Your task to perform on an android device: change text size in settings app Image 0: 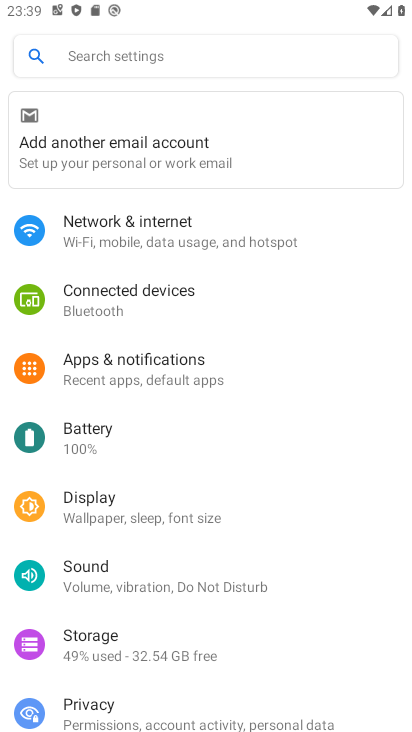
Step 0: click (256, 520)
Your task to perform on an android device: change text size in settings app Image 1: 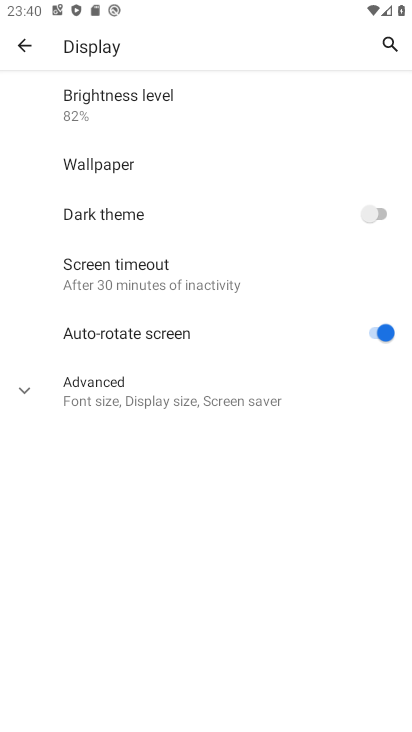
Step 1: click (148, 389)
Your task to perform on an android device: change text size in settings app Image 2: 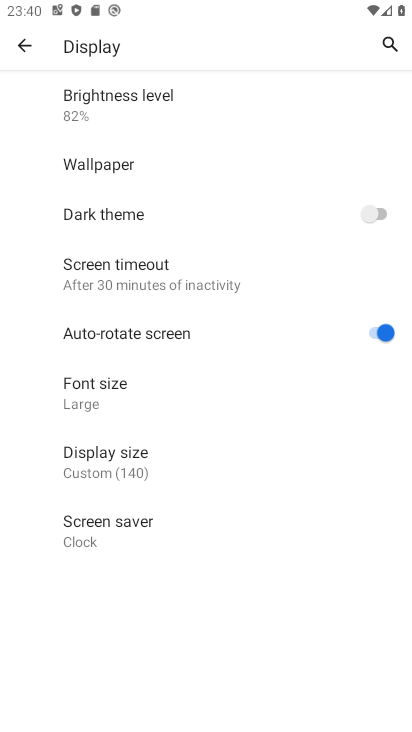
Step 2: click (148, 389)
Your task to perform on an android device: change text size in settings app Image 3: 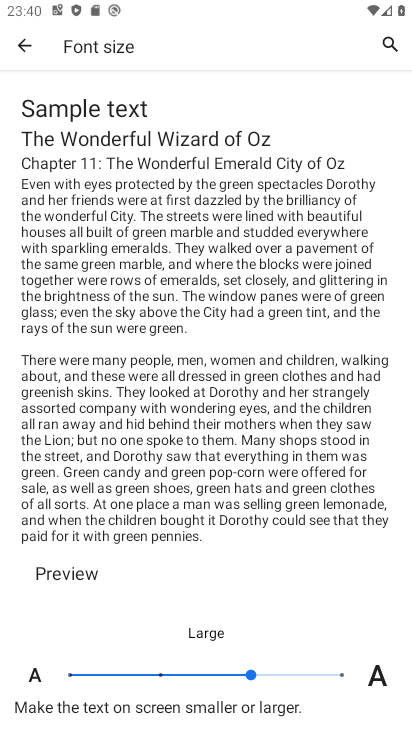
Step 3: click (164, 671)
Your task to perform on an android device: change text size in settings app Image 4: 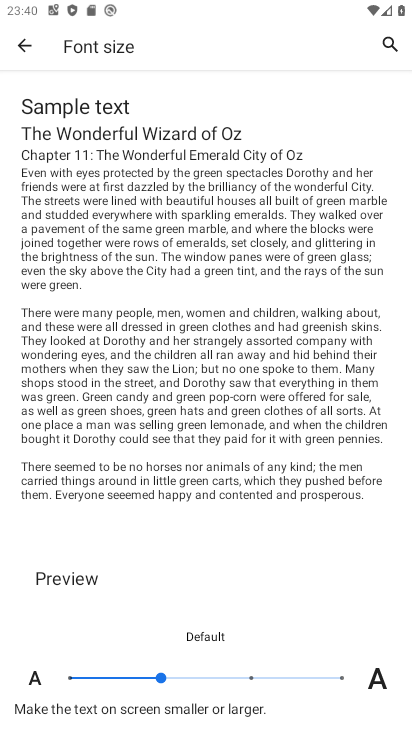
Step 4: task complete